Your task to perform on an android device: Open eBay Image 0: 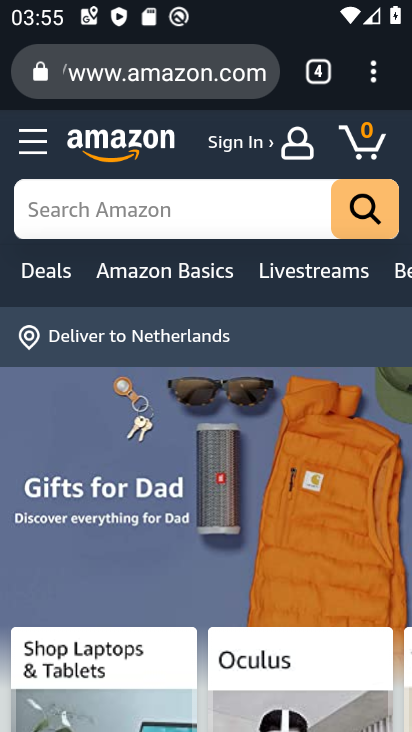
Step 0: click (312, 58)
Your task to perform on an android device: Open eBay Image 1: 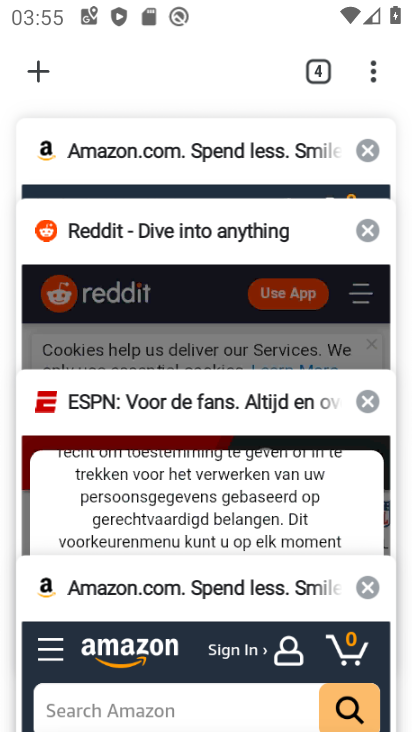
Step 1: click (28, 54)
Your task to perform on an android device: Open eBay Image 2: 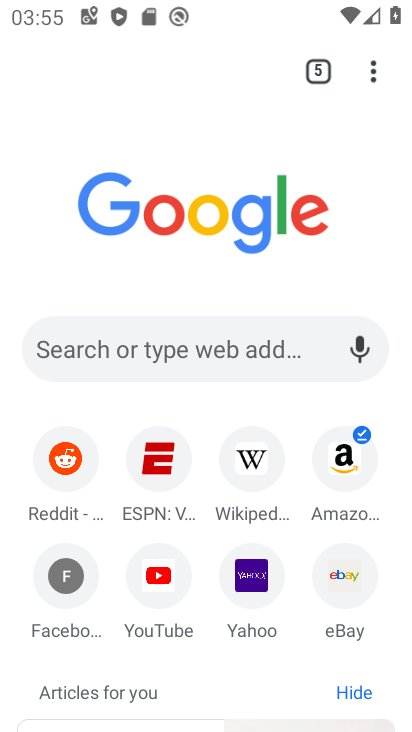
Step 2: click (352, 577)
Your task to perform on an android device: Open eBay Image 3: 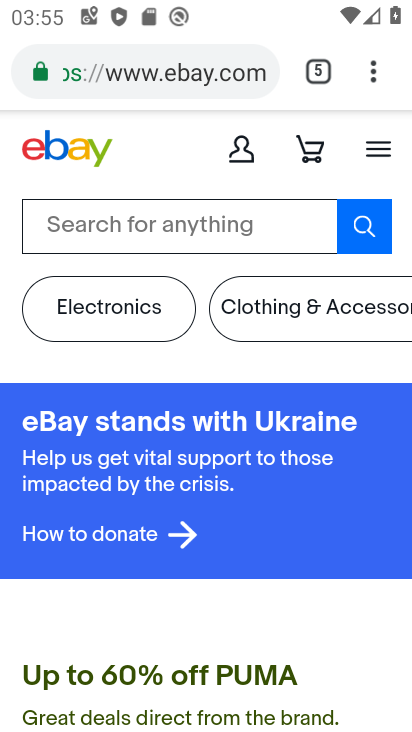
Step 3: task complete